Your task to perform on an android device: Open CNN.com Image 0: 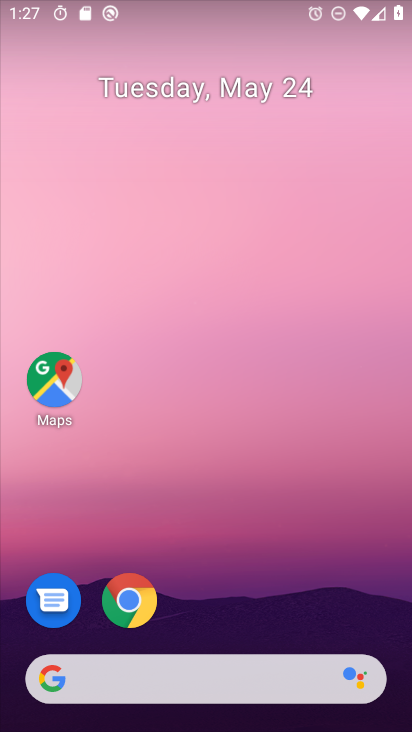
Step 0: click (134, 602)
Your task to perform on an android device: Open CNN.com Image 1: 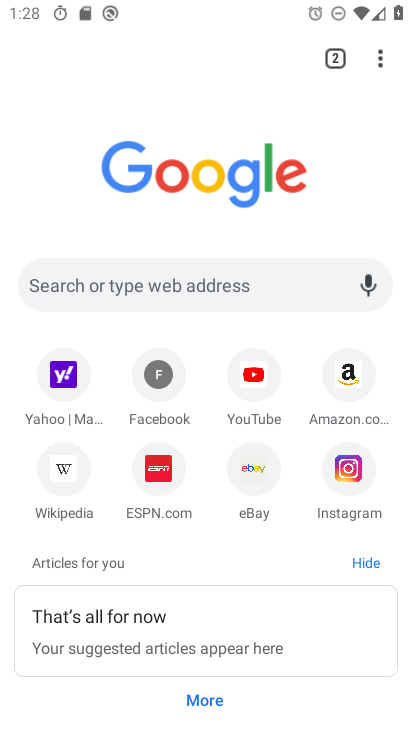
Step 1: click (229, 289)
Your task to perform on an android device: Open CNN.com Image 2: 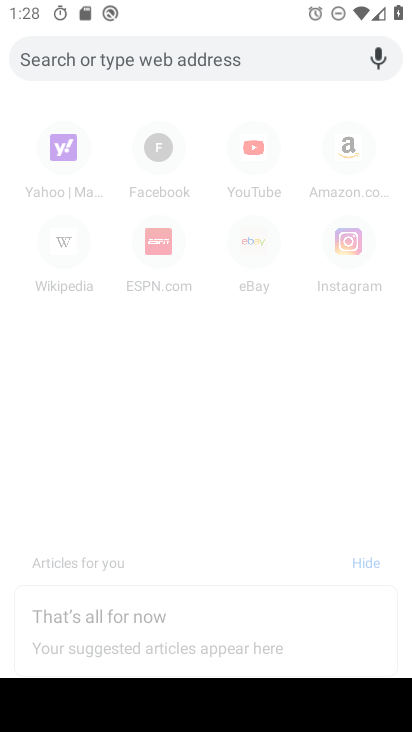
Step 2: type "cnn.com"
Your task to perform on an android device: Open CNN.com Image 3: 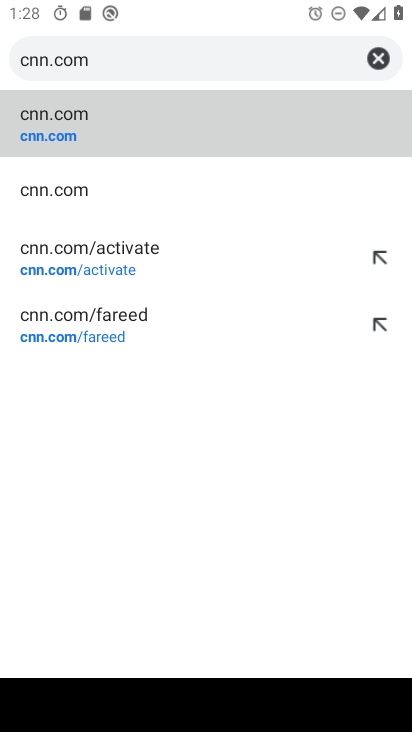
Step 3: click (69, 134)
Your task to perform on an android device: Open CNN.com Image 4: 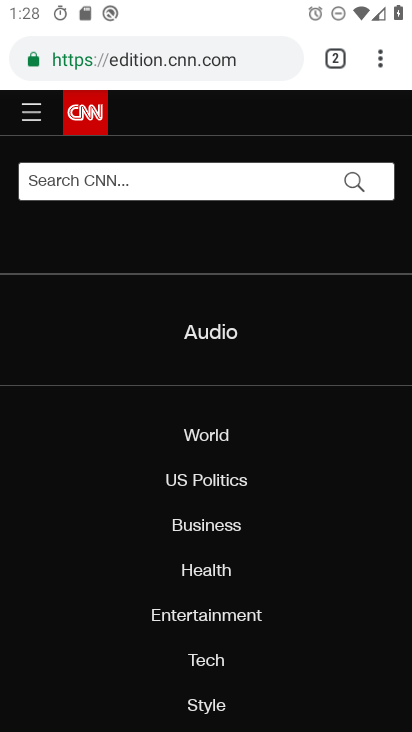
Step 4: task complete